Your task to perform on an android device: Check the settings for the Lyft app Image 0: 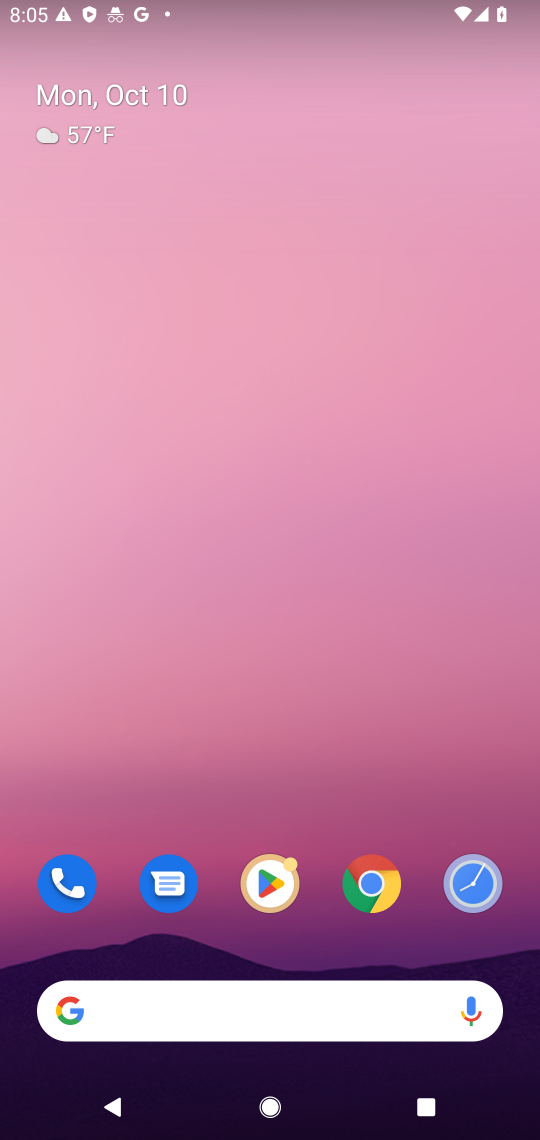
Step 0: drag from (319, 989) to (318, 596)
Your task to perform on an android device: Check the settings for the Lyft app Image 1: 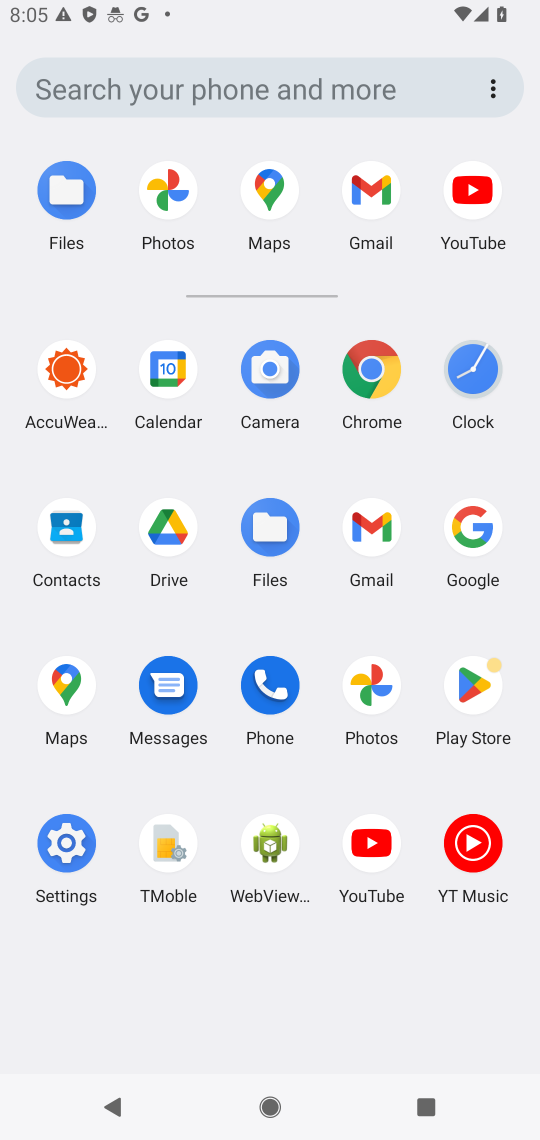
Step 1: task complete